Your task to perform on an android device: Go to network settings Image 0: 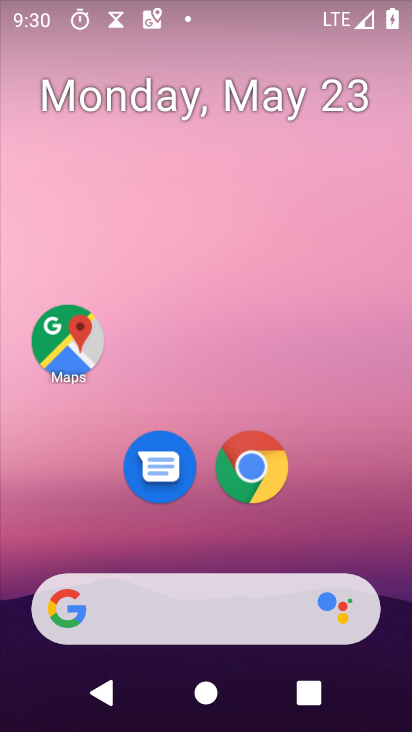
Step 0: drag from (350, 454) to (294, 87)
Your task to perform on an android device: Go to network settings Image 1: 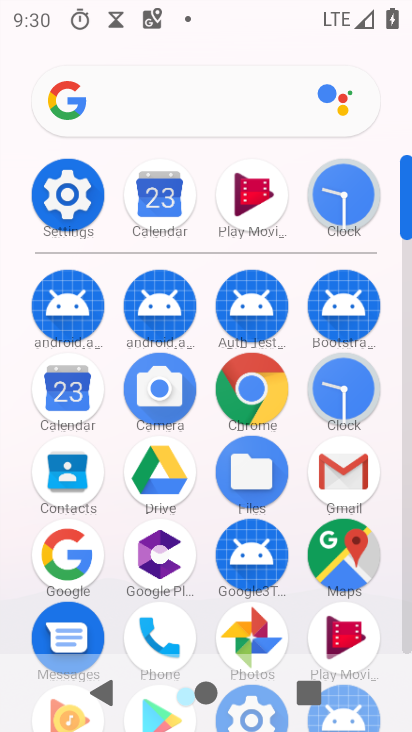
Step 1: click (67, 213)
Your task to perform on an android device: Go to network settings Image 2: 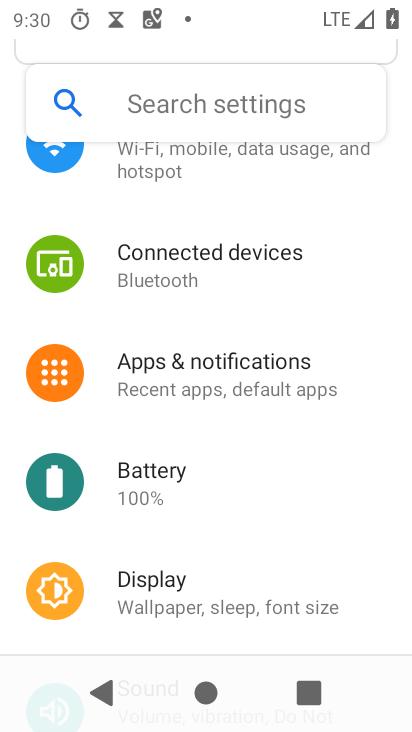
Step 2: click (183, 176)
Your task to perform on an android device: Go to network settings Image 3: 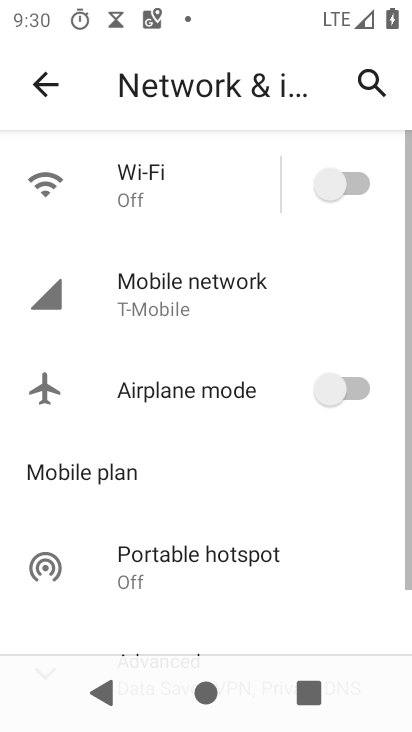
Step 3: task complete